Your task to perform on an android device: change alarm snooze length Image 0: 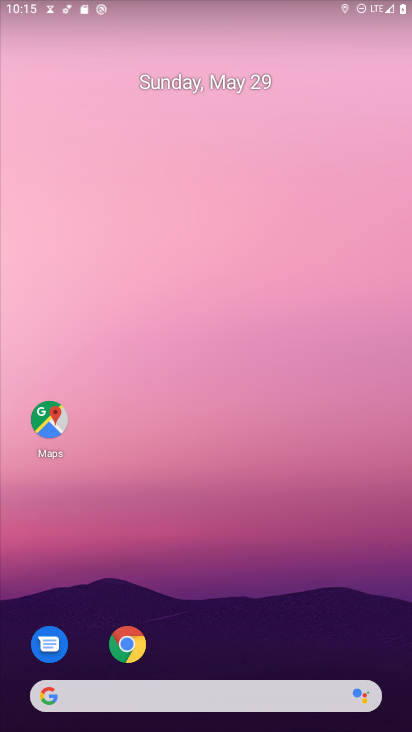
Step 0: drag from (135, 730) to (176, 51)
Your task to perform on an android device: change alarm snooze length Image 1: 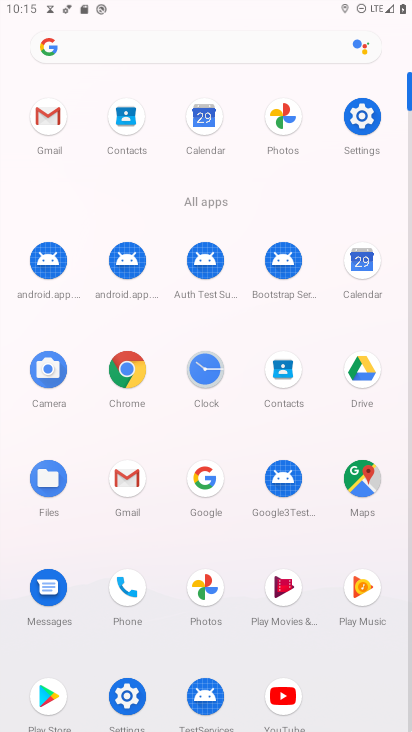
Step 1: click (208, 378)
Your task to perform on an android device: change alarm snooze length Image 2: 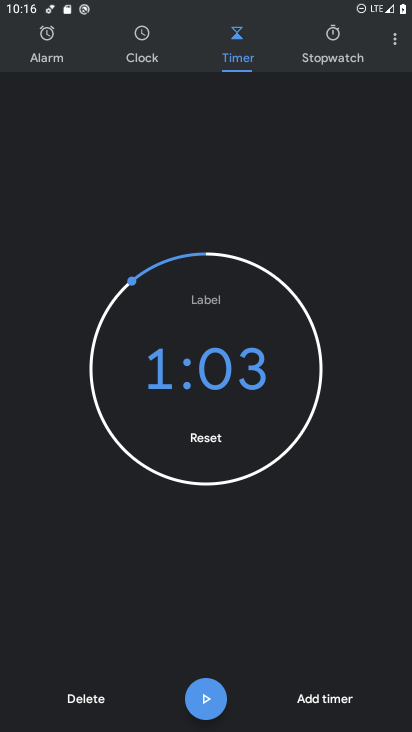
Step 2: click (395, 38)
Your task to perform on an android device: change alarm snooze length Image 3: 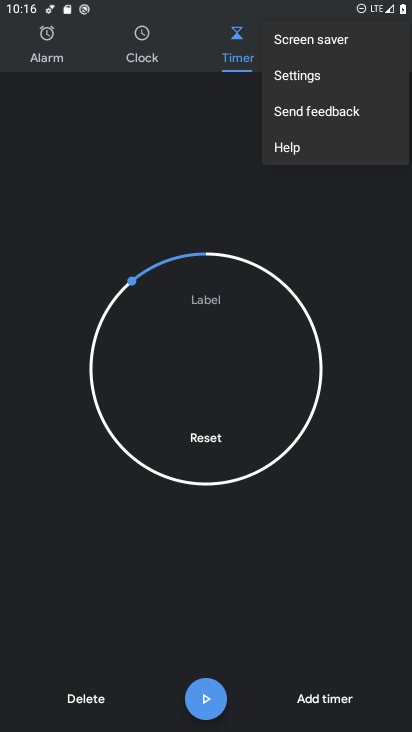
Step 3: click (316, 85)
Your task to perform on an android device: change alarm snooze length Image 4: 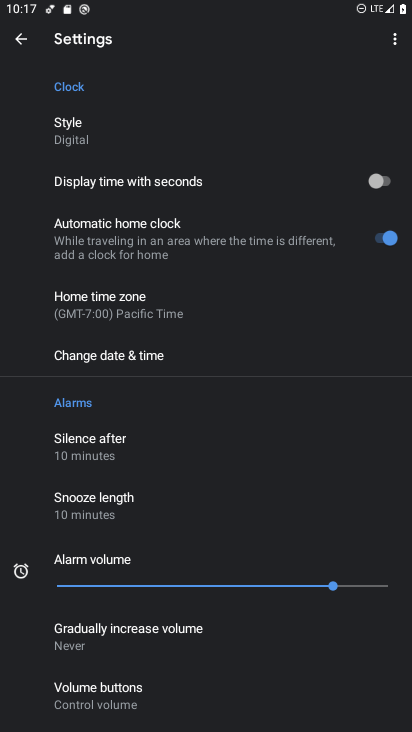
Step 4: click (154, 517)
Your task to perform on an android device: change alarm snooze length Image 5: 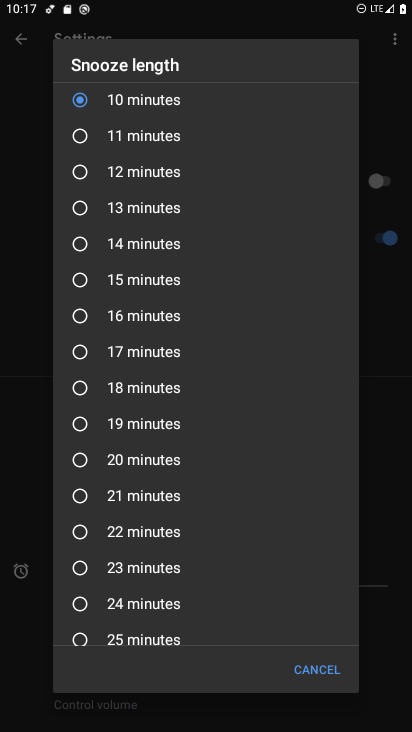
Step 5: click (148, 171)
Your task to perform on an android device: change alarm snooze length Image 6: 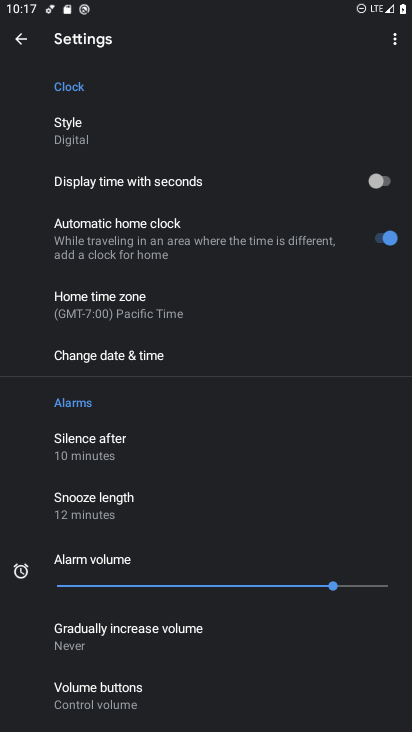
Step 6: task complete